Your task to perform on an android device: When is my next appointment? Image 0: 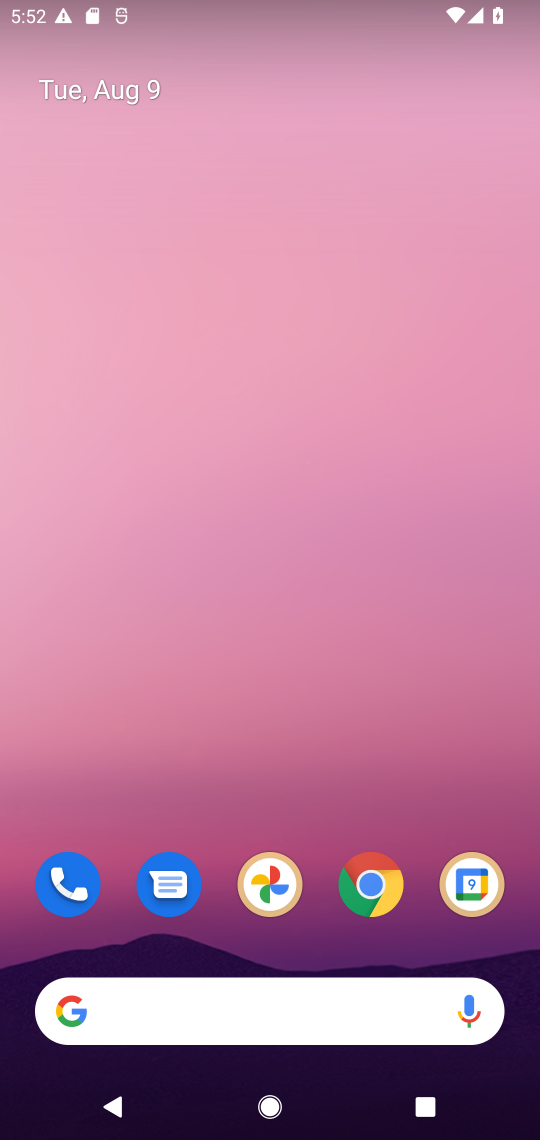
Step 0: drag from (157, 1015) to (214, 332)
Your task to perform on an android device: When is my next appointment? Image 1: 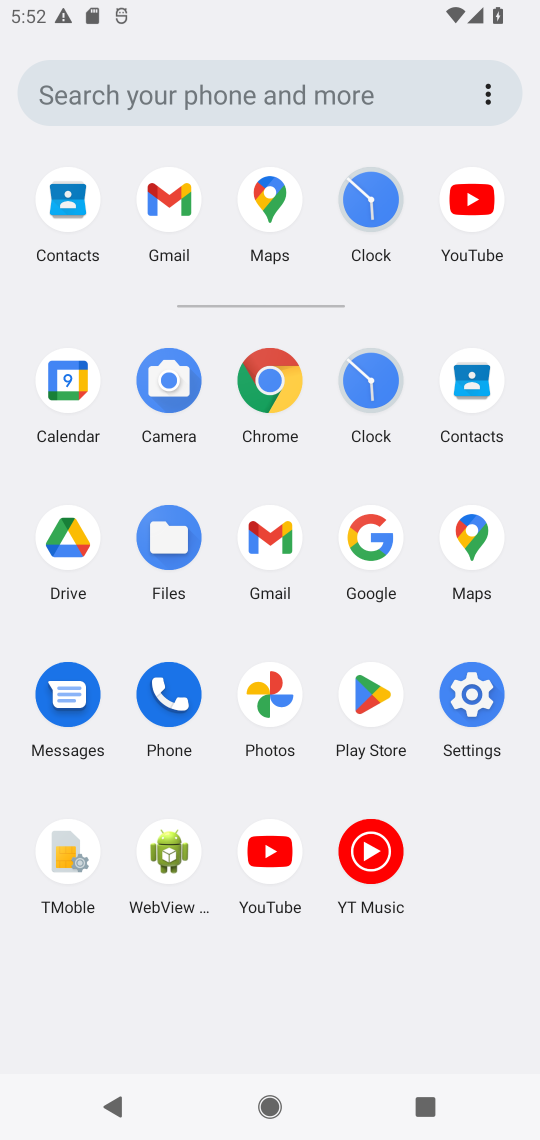
Step 1: click (70, 376)
Your task to perform on an android device: When is my next appointment? Image 2: 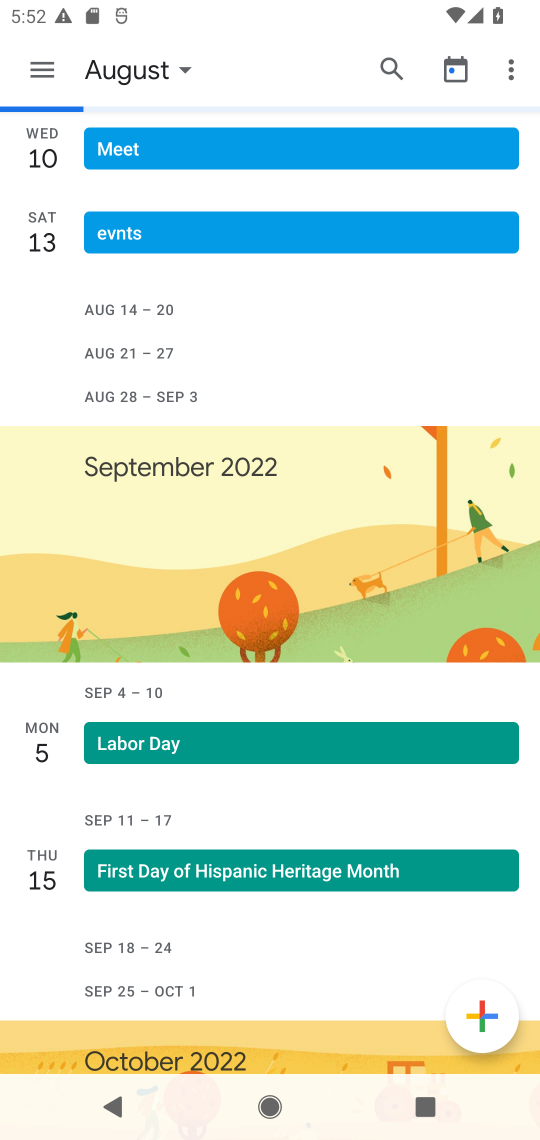
Step 2: click (458, 70)
Your task to perform on an android device: When is my next appointment? Image 3: 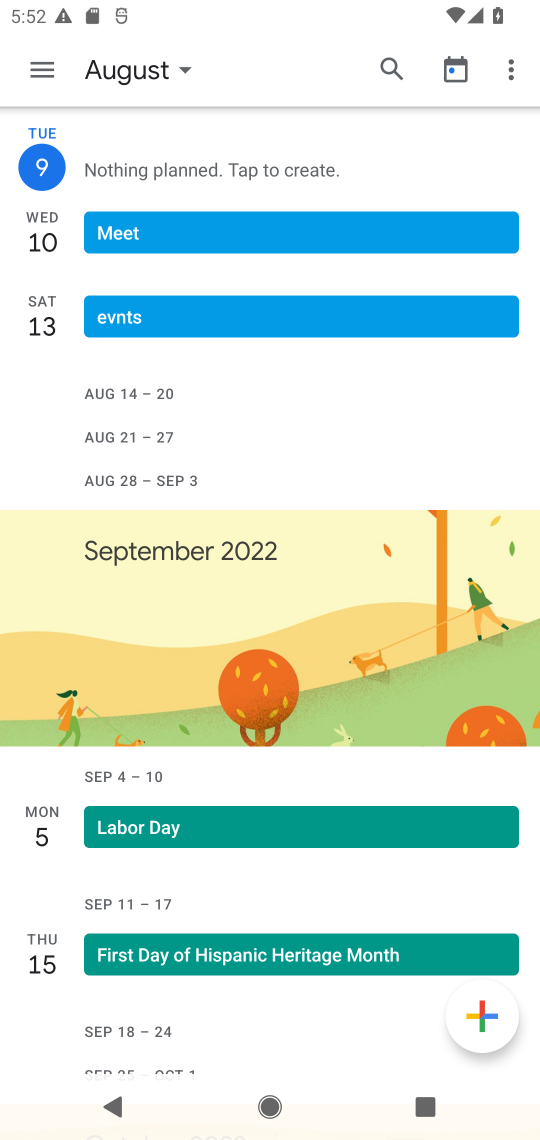
Step 3: click (181, 68)
Your task to perform on an android device: When is my next appointment? Image 4: 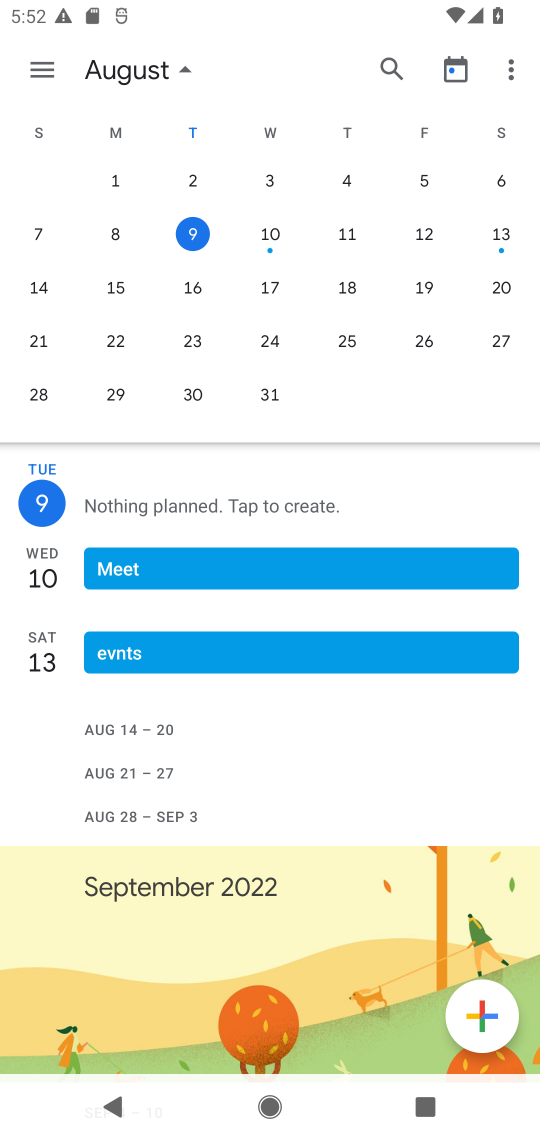
Step 4: click (281, 239)
Your task to perform on an android device: When is my next appointment? Image 5: 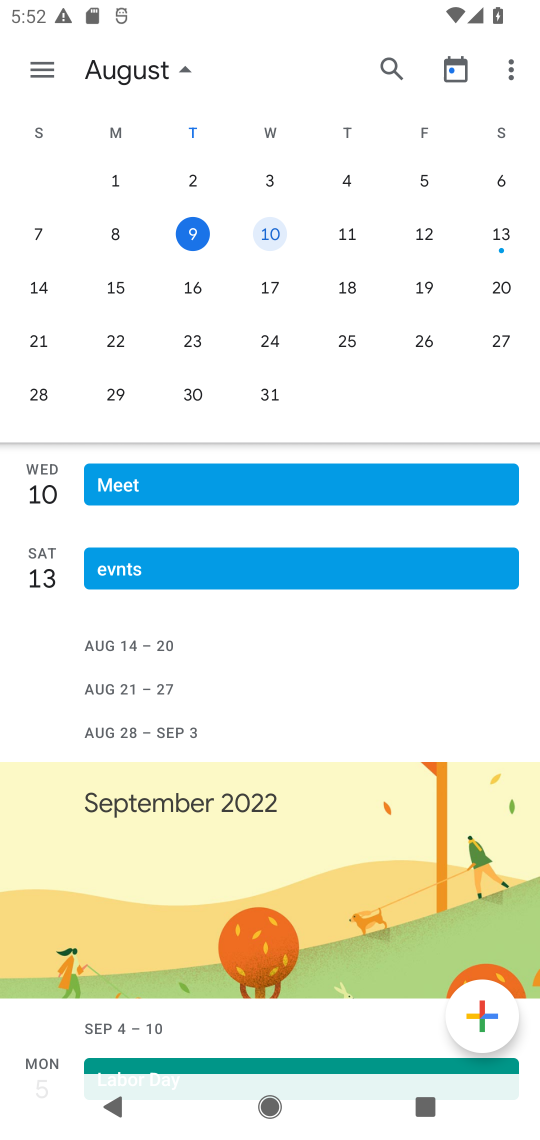
Step 5: click (36, 71)
Your task to perform on an android device: When is my next appointment? Image 6: 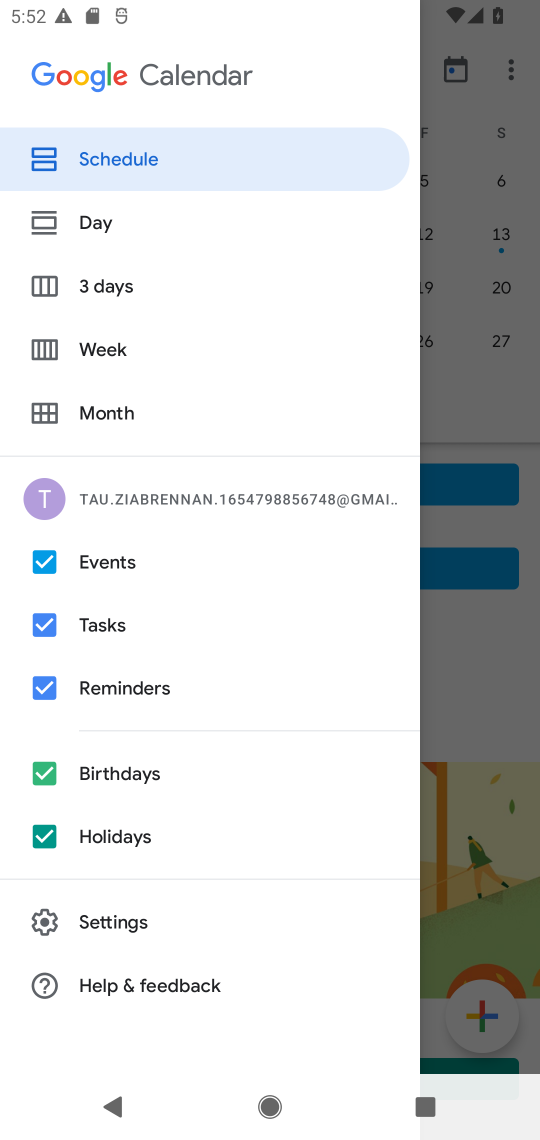
Step 6: click (109, 168)
Your task to perform on an android device: When is my next appointment? Image 7: 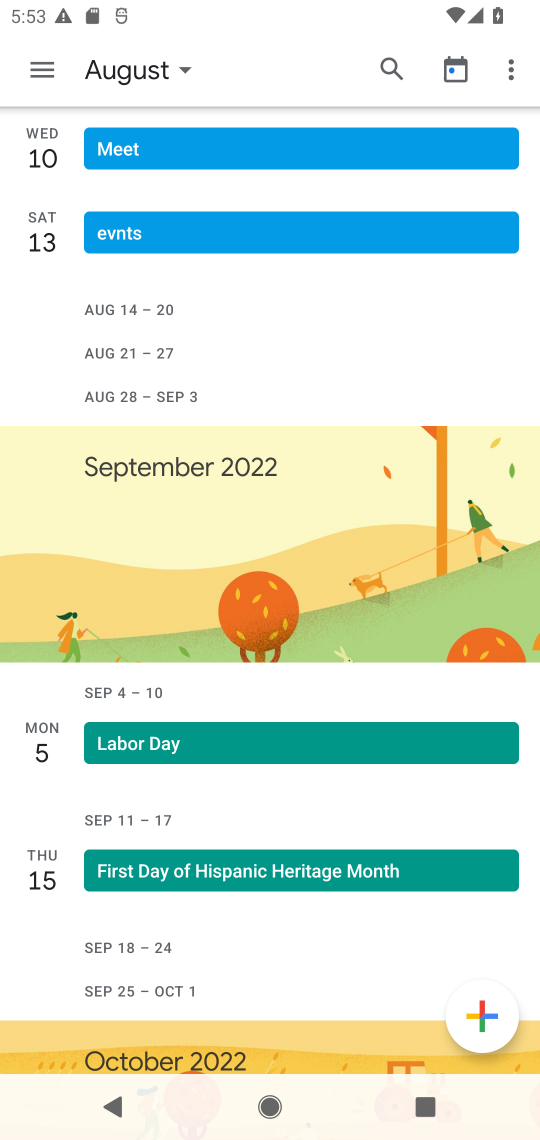
Step 7: task complete